Your task to perform on an android device: turn vacation reply on in the gmail app Image 0: 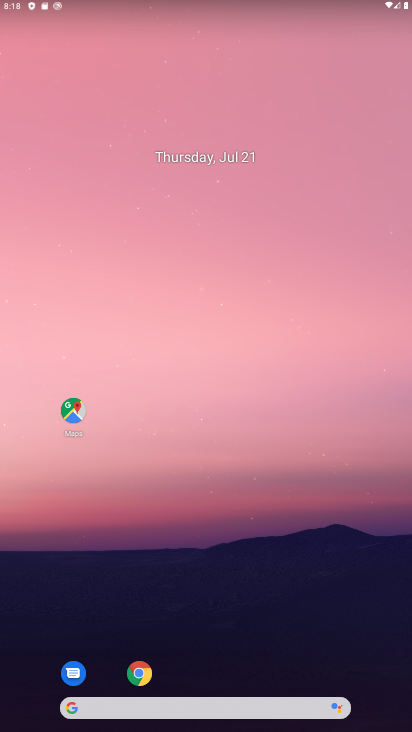
Step 0: drag from (229, 613) to (230, 254)
Your task to perform on an android device: turn vacation reply on in the gmail app Image 1: 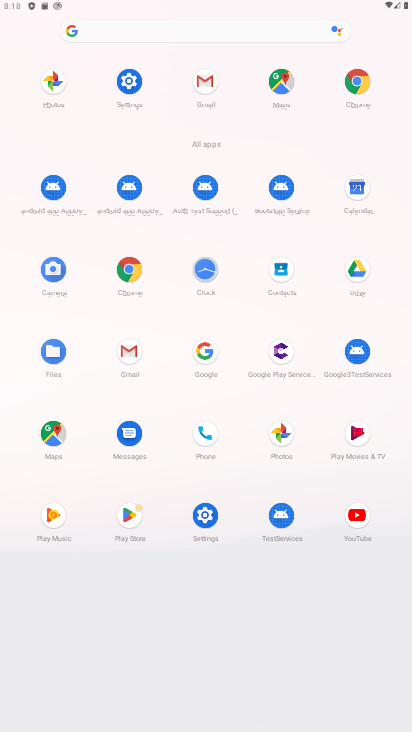
Step 1: click (212, 96)
Your task to perform on an android device: turn vacation reply on in the gmail app Image 2: 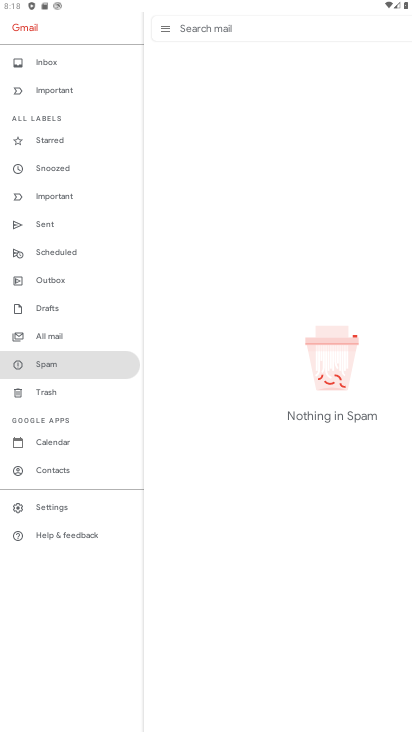
Step 2: click (83, 503)
Your task to perform on an android device: turn vacation reply on in the gmail app Image 3: 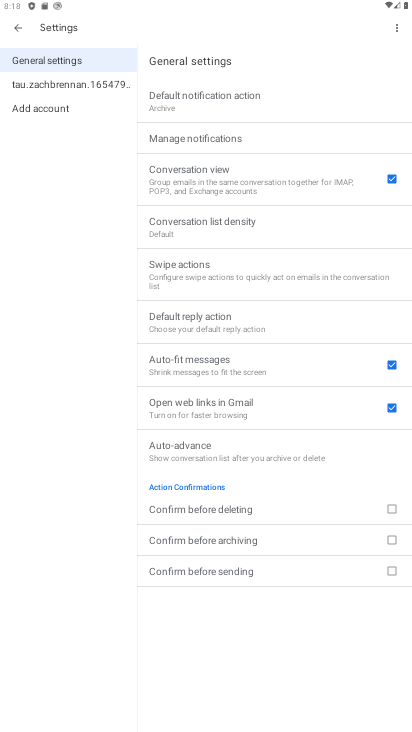
Step 3: click (37, 94)
Your task to perform on an android device: turn vacation reply on in the gmail app Image 4: 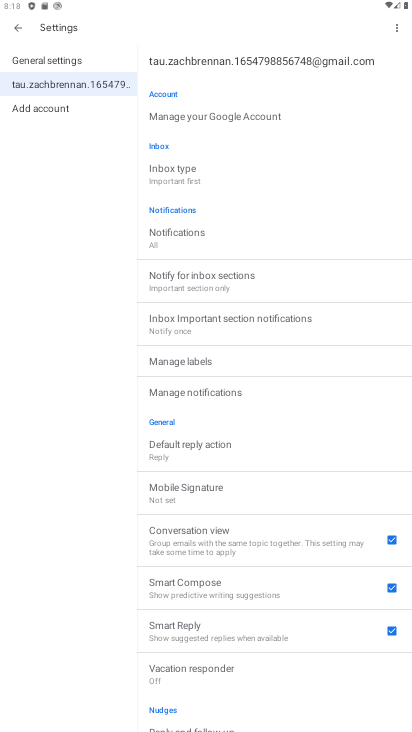
Step 4: click (237, 674)
Your task to perform on an android device: turn vacation reply on in the gmail app Image 5: 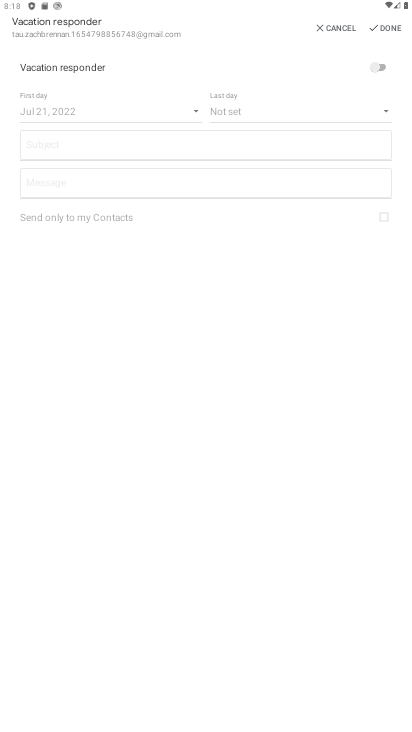
Step 5: click (381, 62)
Your task to perform on an android device: turn vacation reply on in the gmail app Image 6: 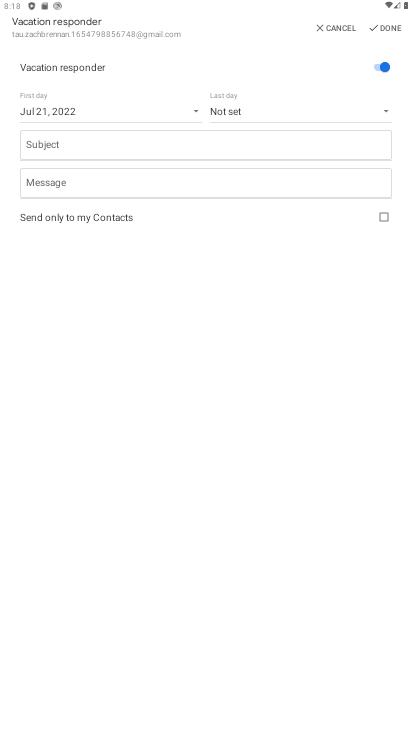
Step 6: task complete